Your task to perform on an android device: Go to Google maps Image 0: 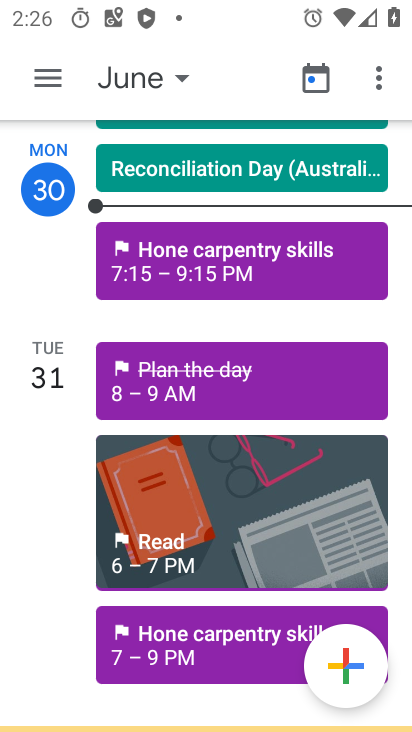
Step 0: press back button
Your task to perform on an android device: Go to Google maps Image 1: 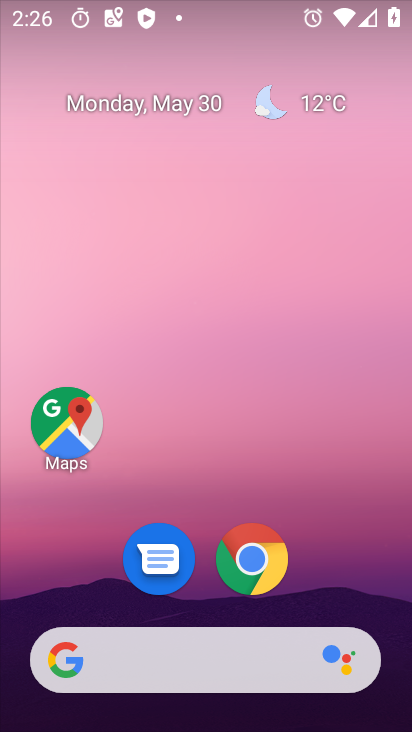
Step 1: click (68, 424)
Your task to perform on an android device: Go to Google maps Image 2: 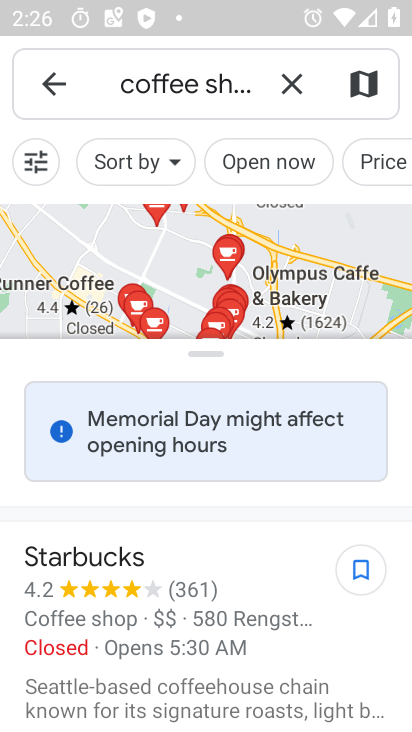
Step 2: task complete